Your task to perform on an android device: Open notification settings Image 0: 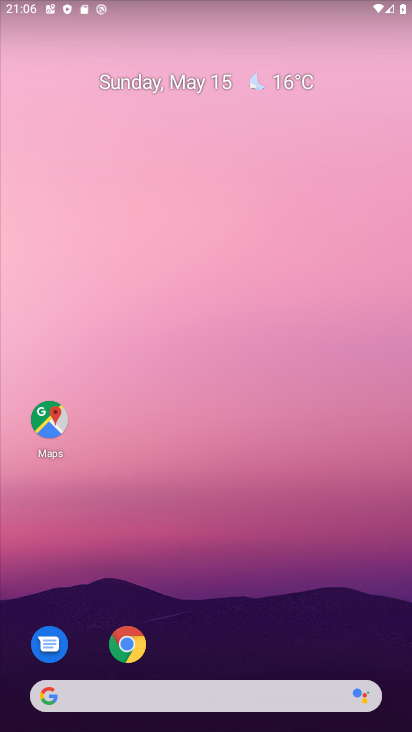
Step 0: click (119, 645)
Your task to perform on an android device: Open notification settings Image 1: 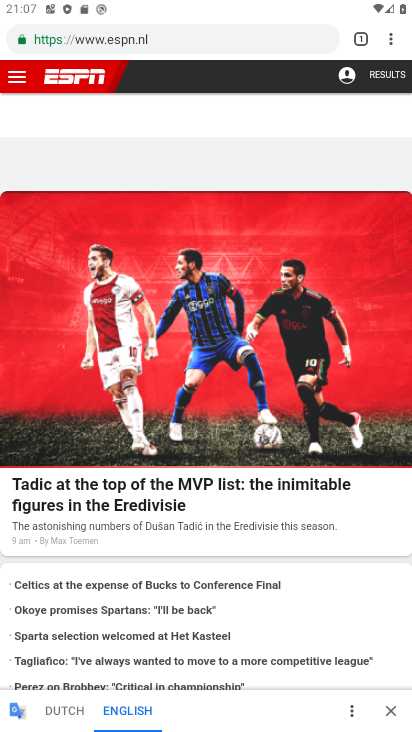
Step 1: press back button
Your task to perform on an android device: Open notification settings Image 2: 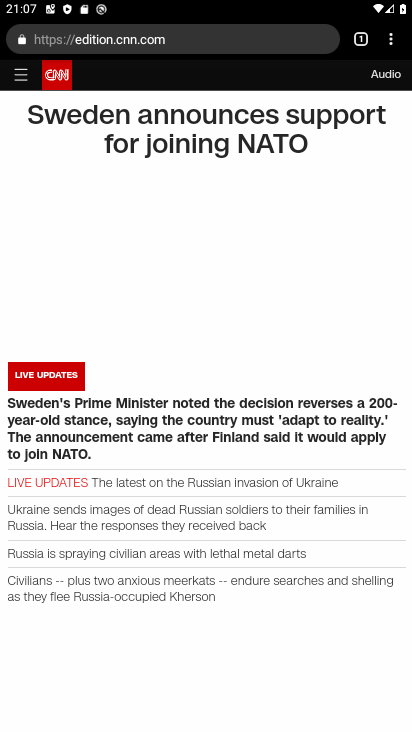
Step 2: press home button
Your task to perform on an android device: Open notification settings Image 3: 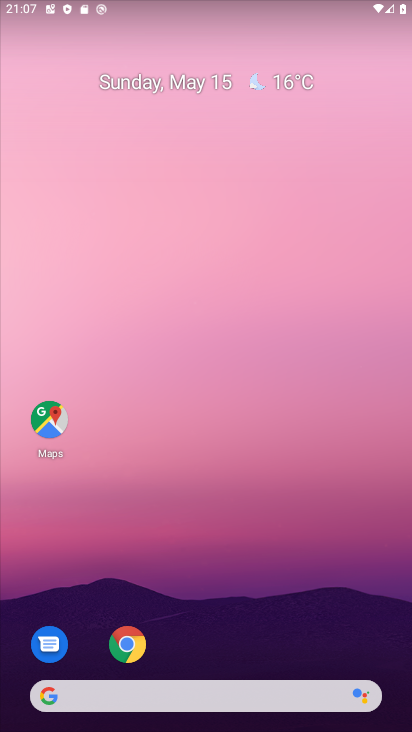
Step 3: drag from (167, 646) to (263, 77)
Your task to perform on an android device: Open notification settings Image 4: 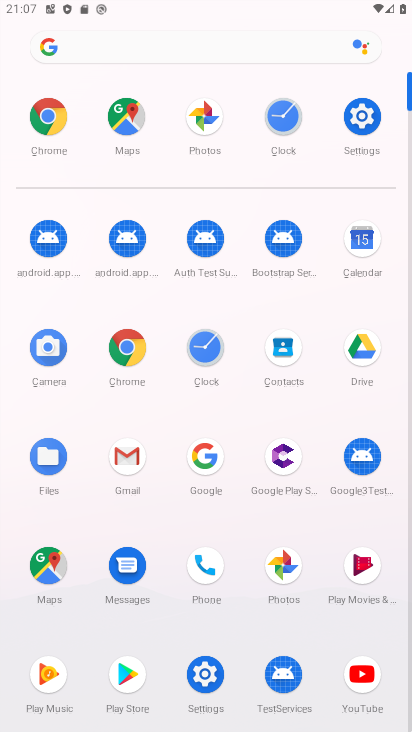
Step 4: click (369, 113)
Your task to perform on an android device: Open notification settings Image 5: 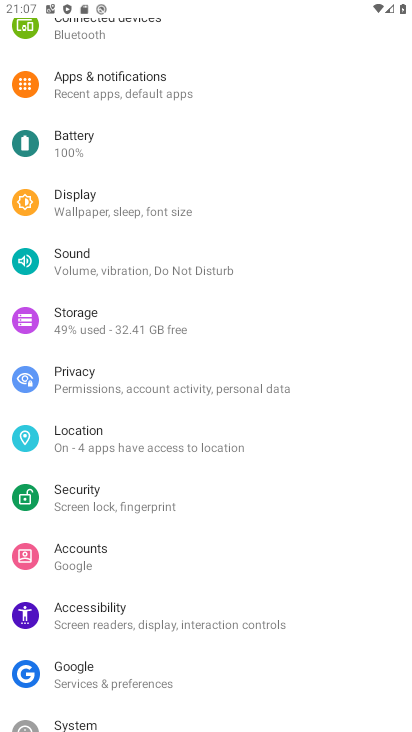
Step 5: click (214, 90)
Your task to perform on an android device: Open notification settings Image 6: 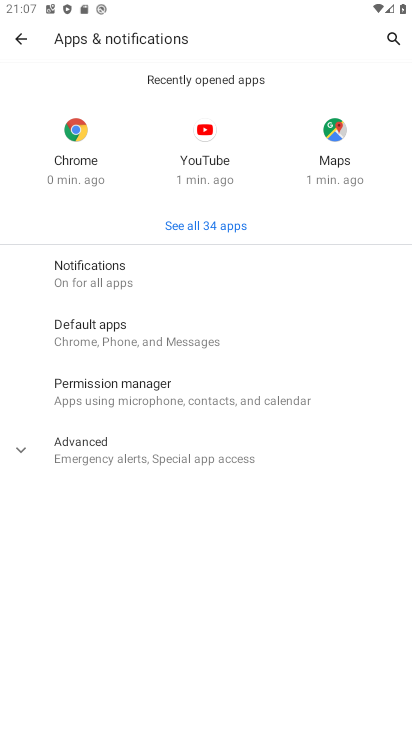
Step 6: task complete